Your task to perform on an android device: Open Google Image 0: 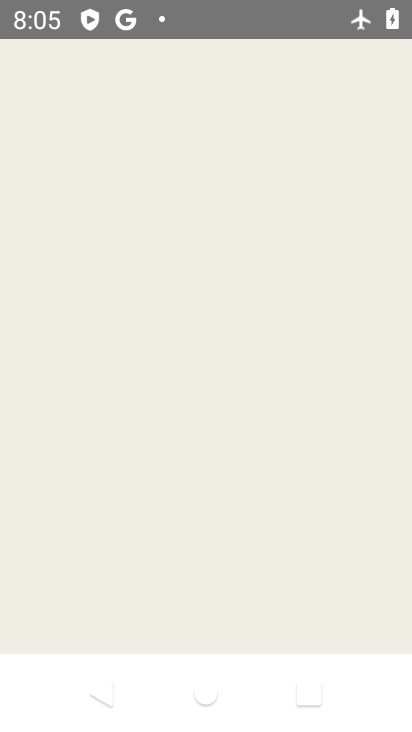
Step 0: click (254, 467)
Your task to perform on an android device: Open Google Image 1: 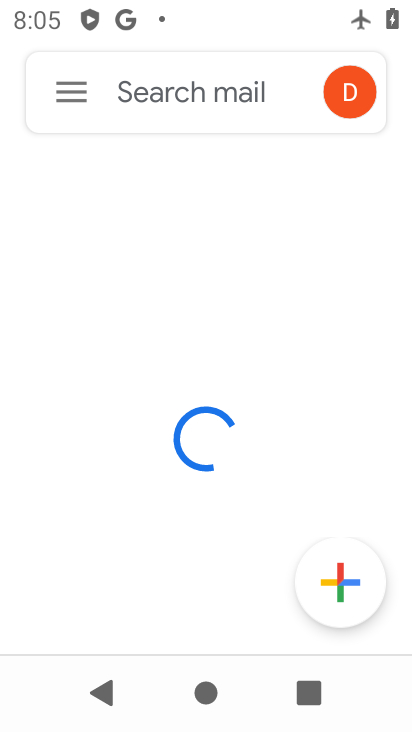
Step 1: press home button
Your task to perform on an android device: Open Google Image 2: 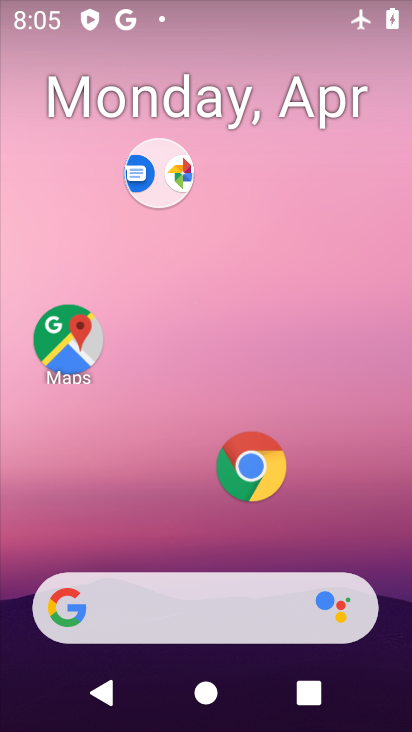
Step 2: drag from (172, 544) to (245, 116)
Your task to perform on an android device: Open Google Image 3: 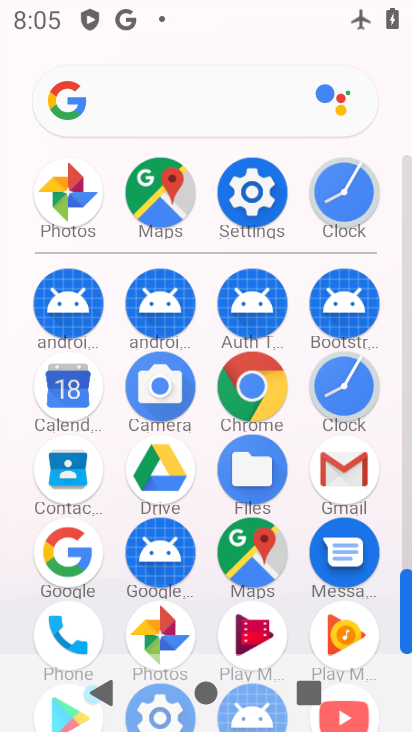
Step 3: click (71, 556)
Your task to perform on an android device: Open Google Image 4: 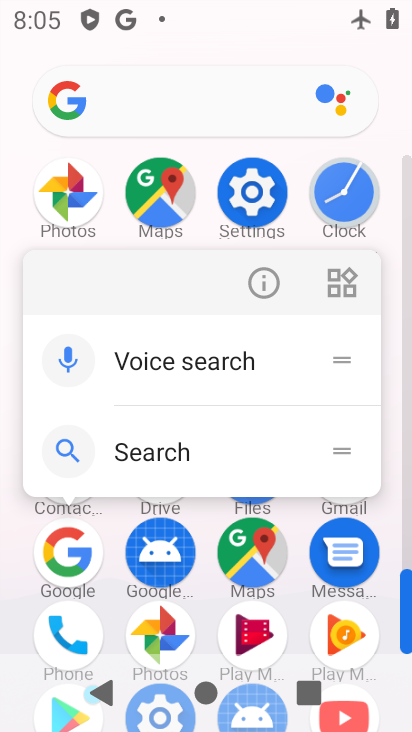
Step 4: click (263, 281)
Your task to perform on an android device: Open Google Image 5: 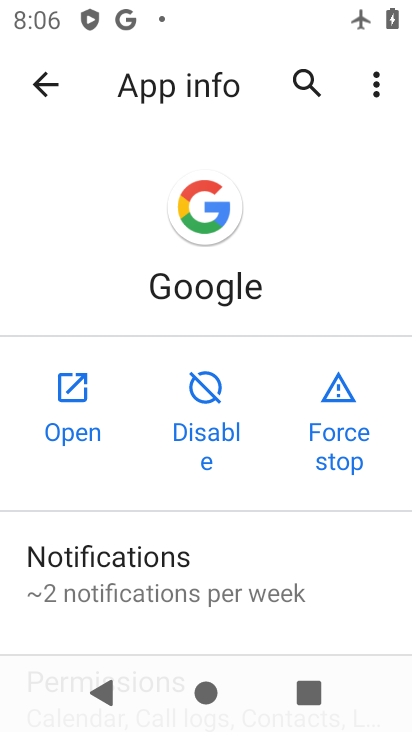
Step 5: click (77, 411)
Your task to perform on an android device: Open Google Image 6: 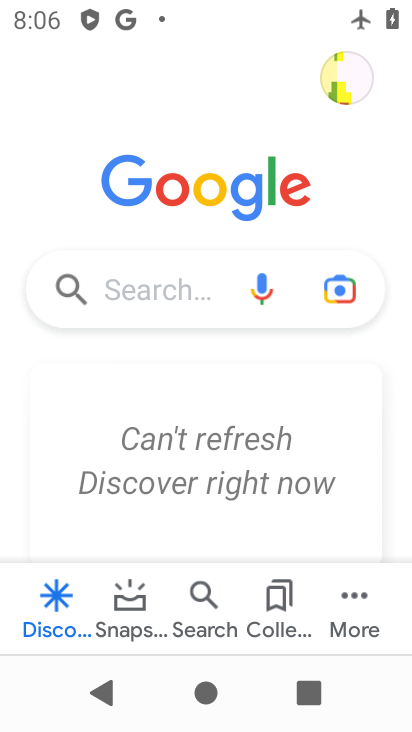
Step 6: task complete